Your task to perform on an android device: turn on javascript in the chrome app Image 0: 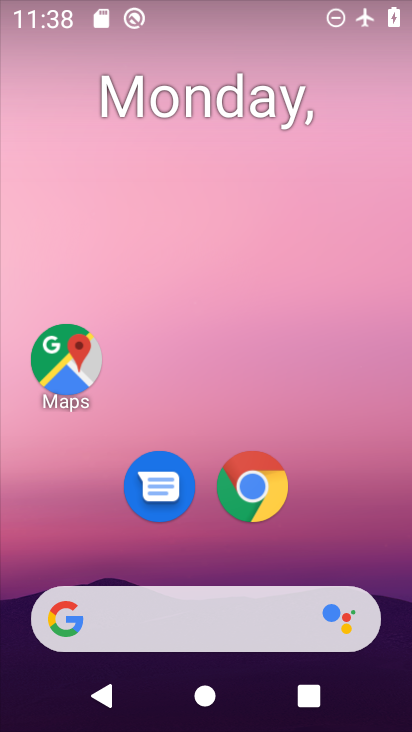
Step 0: click (248, 488)
Your task to perform on an android device: turn on javascript in the chrome app Image 1: 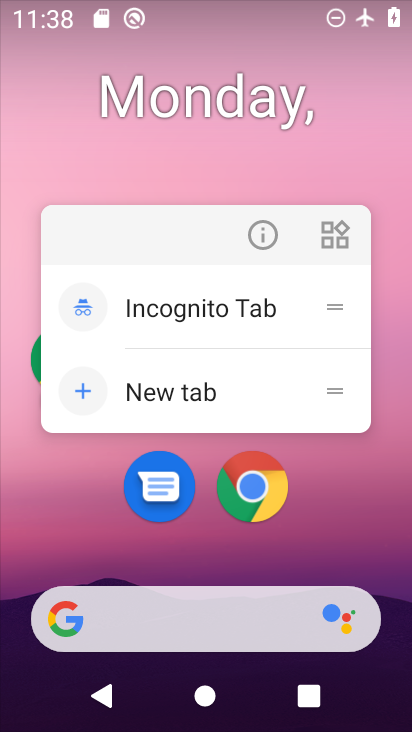
Step 1: click (332, 148)
Your task to perform on an android device: turn on javascript in the chrome app Image 2: 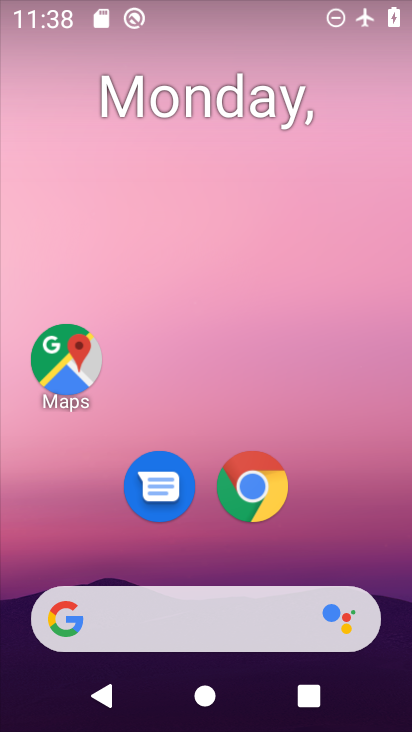
Step 2: click (254, 485)
Your task to perform on an android device: turn on javascript in the chrome app Image 3: 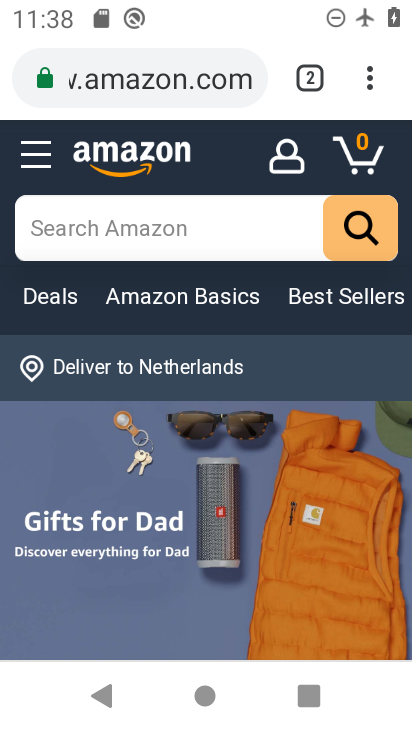
Step 3: click (369, 74)
Your task to perform on an android device: turn on javascript in the chrome app Image 4: 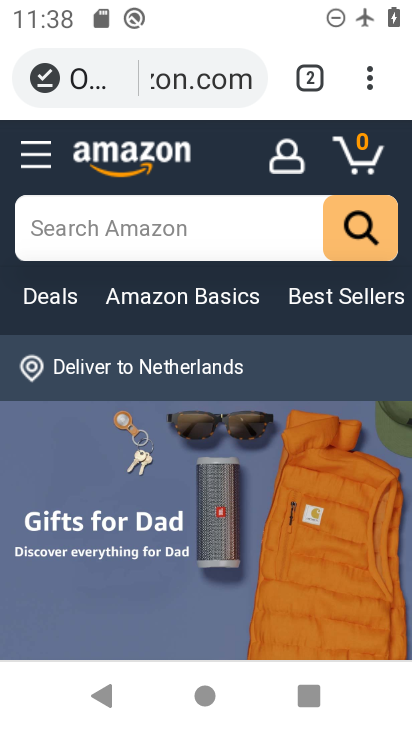
Step 4: click (365, 82)
Your task to perform on an android device: turn on javascript in the chrome app Image 5: 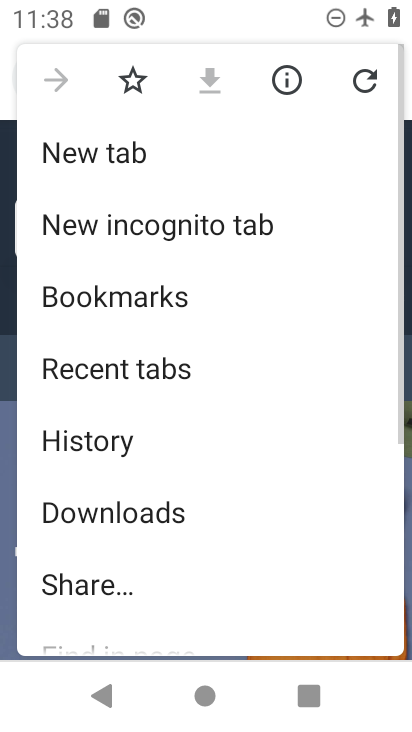
Step 5: drag from (112, 626) to (305, 173)
Your task to perform on an android device: turn on javascript in the chrome app Image 6: 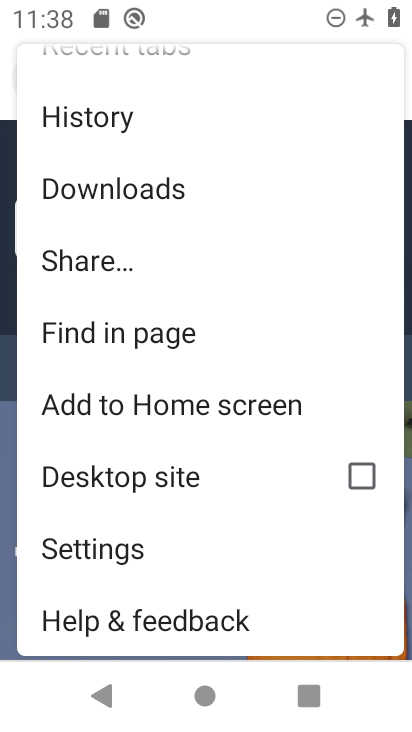
Step 6: click (112, 545)
Your task to perform on an android device: turn on javascript in the chrome app Image 7: 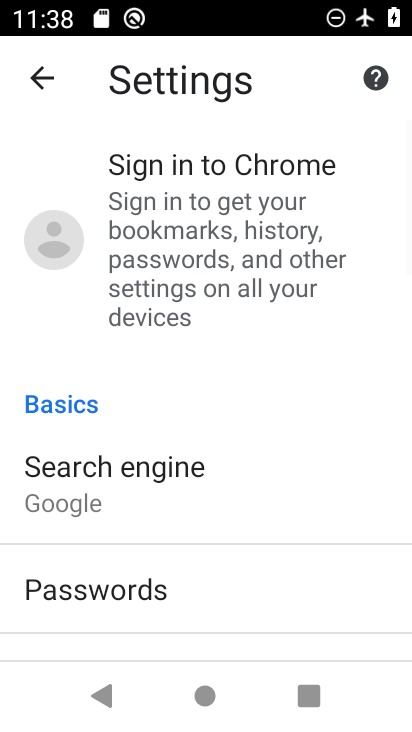
Step 7: drag from (16, 602) to (269, 221)
Your task to perform on an android device: turn on javascript in the chrome app Image 8: 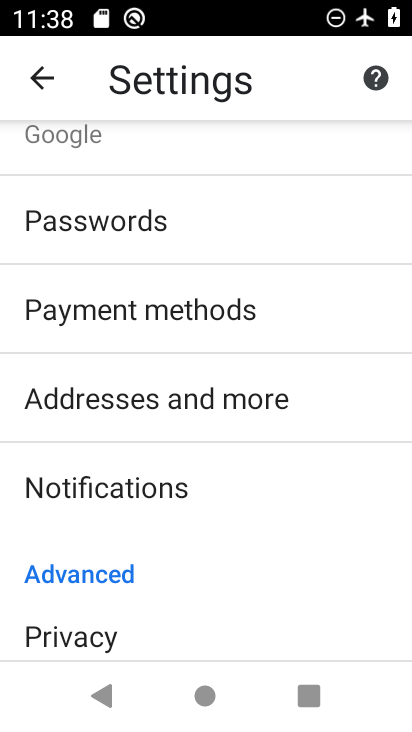
Step 8: drag from (16, 646) to (185, 363)
Your task to perform on an android device: turn on javascript in the chrome app Image 9: 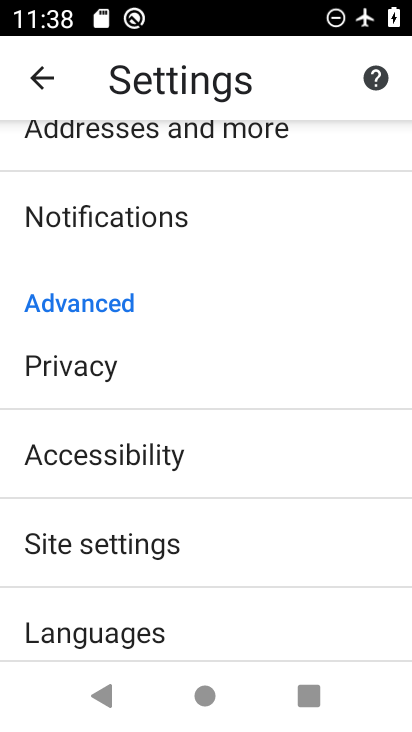
Step 9: click (90, 542)
Your task to perform on an android device: turn on javascript in the chrome app Image 10: 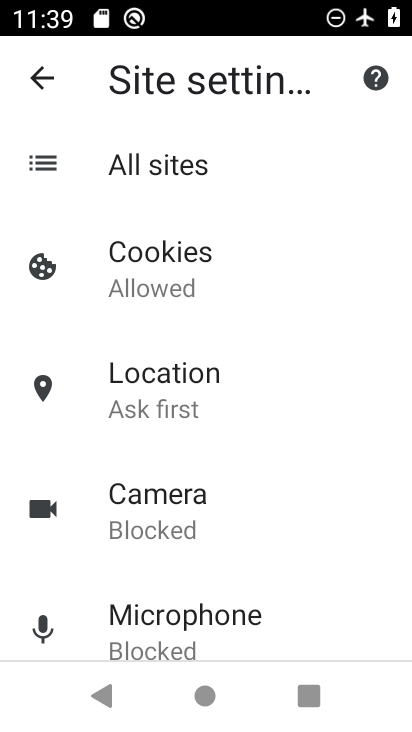
Step 10: drag from (132, 644) to (289, 299)
Your task to perform on an android device: turn on javascript in the chrome app Image 11: 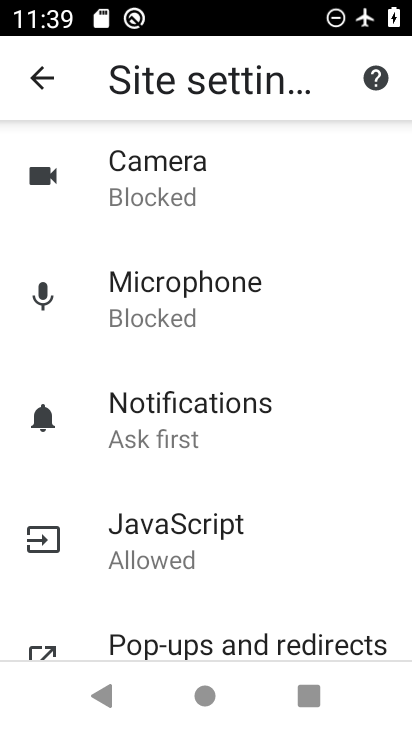
Step 11: click (172, 529)
Your task to perform on an android device: turn on javascript in the chrome app Image 12: 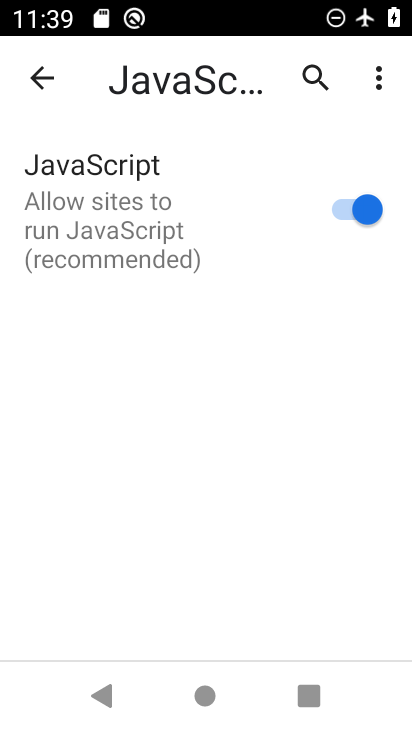
Step 12: task complete